Your task to perform on an android device: Open Google Image 0: 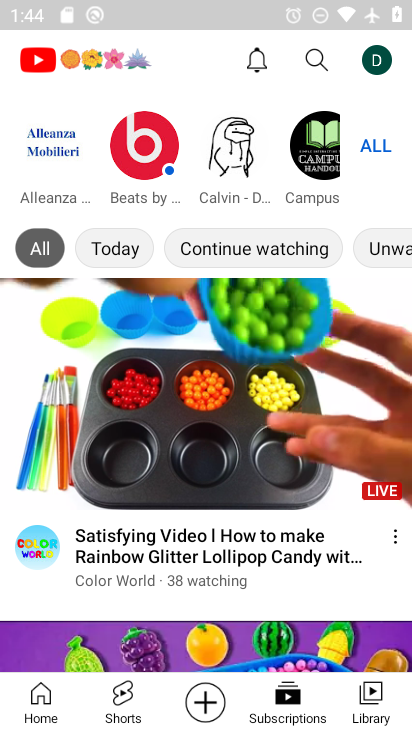
Step 0: press home button
Your task to perform on an android device: Open Google Image 1: 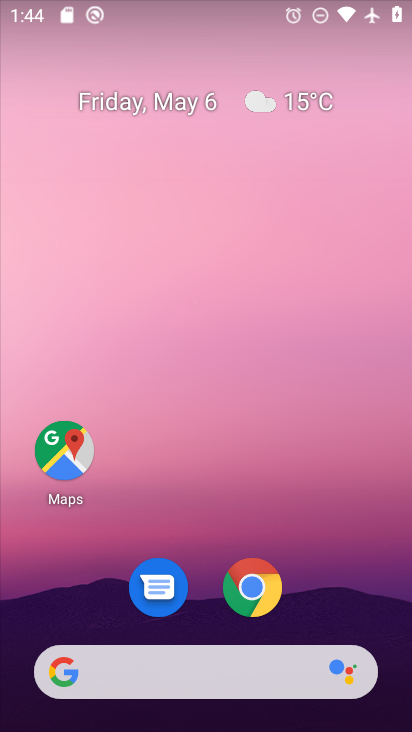
Step 1: drag from (348, 566) to (222, 0)
Your task to perform on an android device: Open Google Image 2: 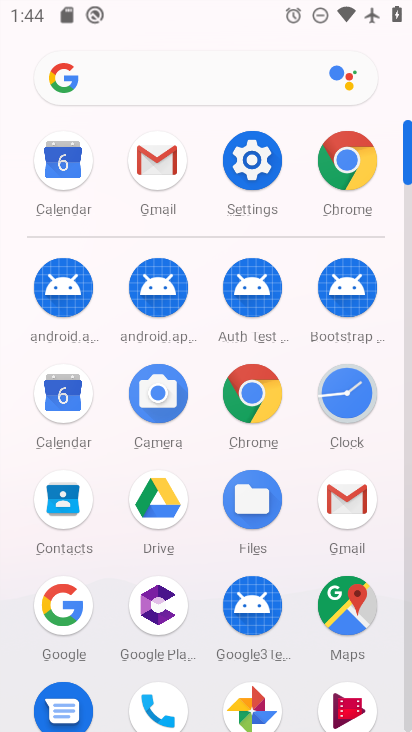
Step 2: click (72, 607)
Your task to perform on an android device: Open Google Image 3: 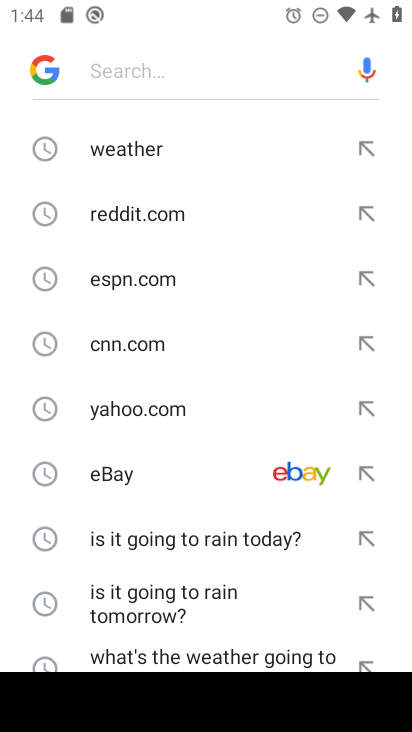
Step 3: task complete